Your task to perform on an android device: Open Chrome and go to the settings page Image 0: 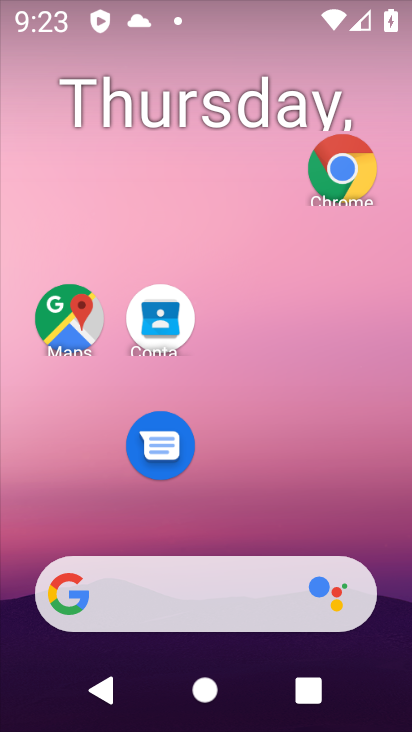
Step 0: drag from (268, 632) to (274, 224)
Your task to perform on an android device: Open Chrome and go to the settings page Image 1: 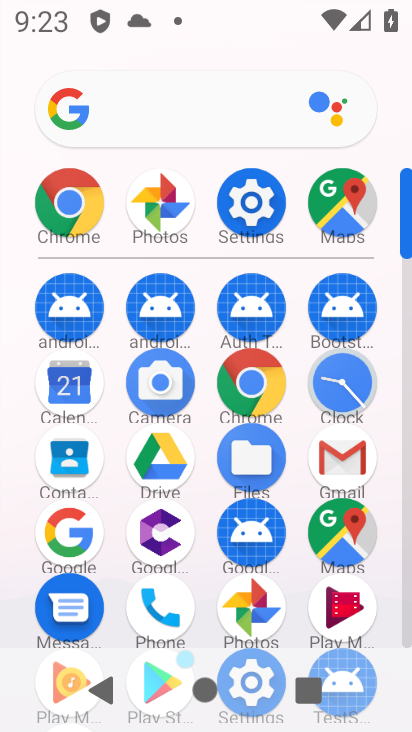
Step 1: click (92, 207)
Your task to perform on an android device: Open Chrome and go to the settings page Image 2: 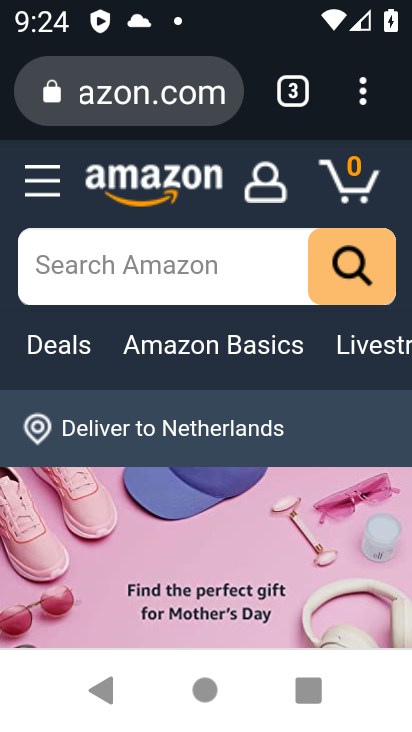
Step 2: click (364, 90)
Your task to perform on an android device: Open Chrome and go to the settings page Image 3: 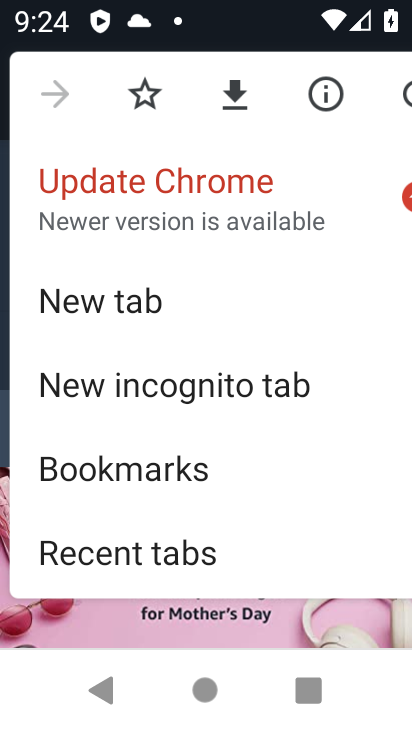
Step 3: drag from (215, 524) to (310, 203)
Your task to perform on an android device: Open Chrome and go to the settings page Image 4: 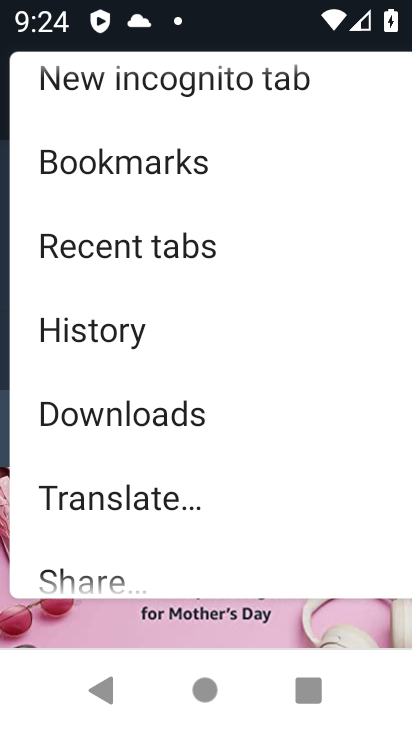
Step 4: drag from (156, 501) to (229, 248)
Your task to perform on an android device: Open Chrome and go to the settings page Image 5: 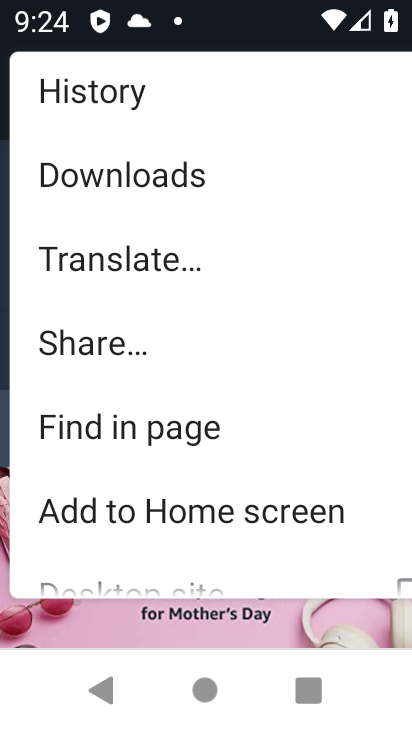
Step 5: drag from (103, 514) to (197, 313)
Your task to perform on an android device: Open Chrome and go to the settings page Image 6: 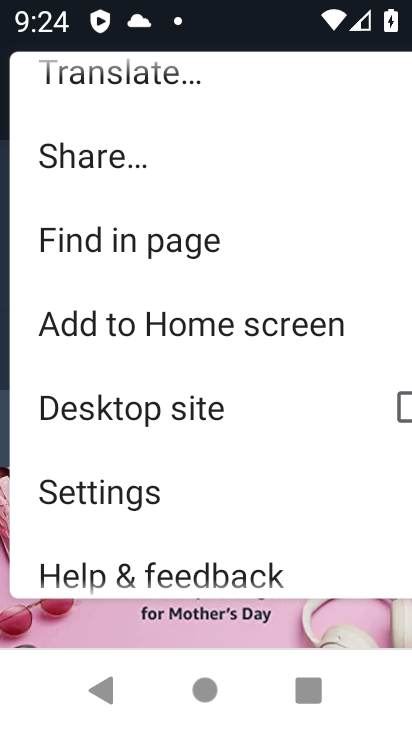
Step 6: click (97, 504)
Your task to perform on an android device: Open Chrome and go to the settings page Image 7: 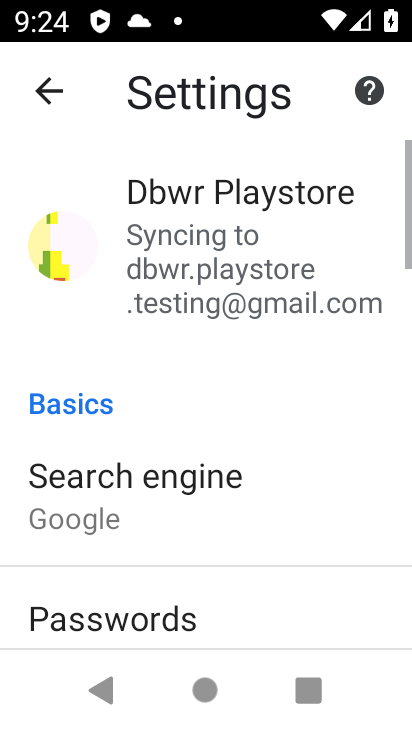
Step 7: task complete